Your task to perform on an android device: Open calendar and show me the first week of next month Image 0: 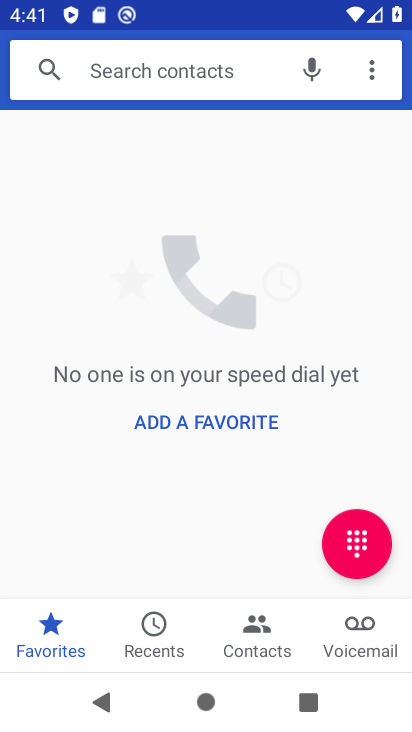
Step 0: drag from (395, 691) to (192, 228)
Your task to perform on an android device: Open calendar and show me the first week of next month Image 1: 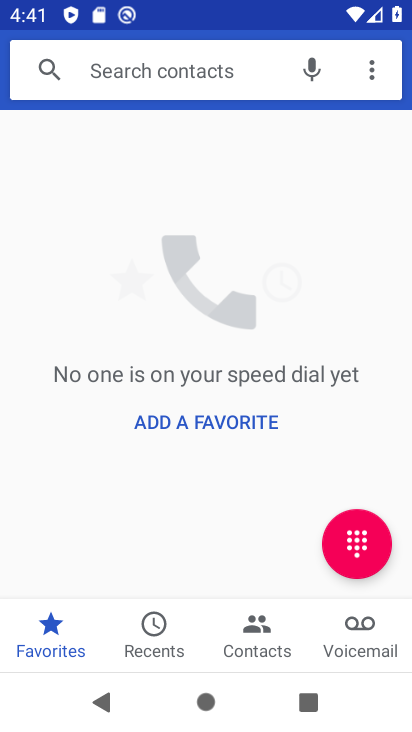
Step 1: press home button
Your task to perform on an android device: Open calendar and show me the first week of next month Image 2: 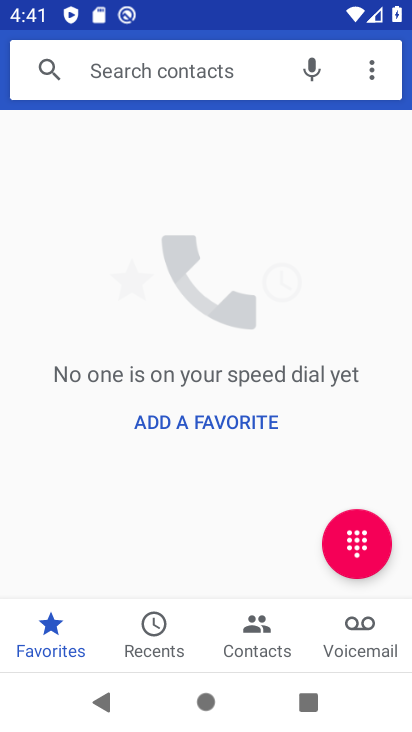
Step 2: press home button
Your task to perform on an android device: Open calendar and show me the first week of next month Image 3: 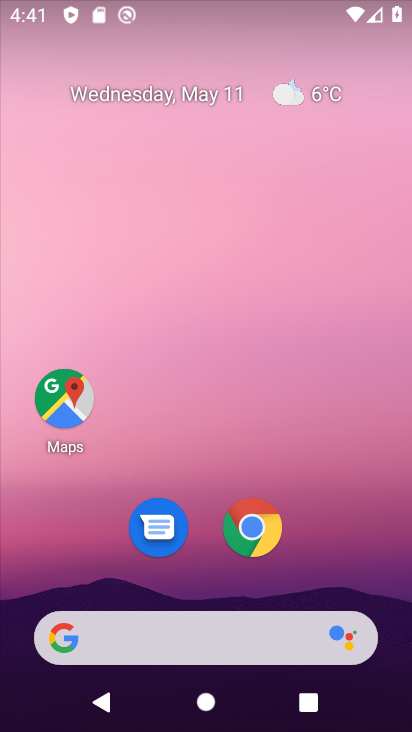
Step 3: drag from (311, 543) to (146, 87)
Your task to perform on an android device: Open calendar and show me the first week of next month Image 4: 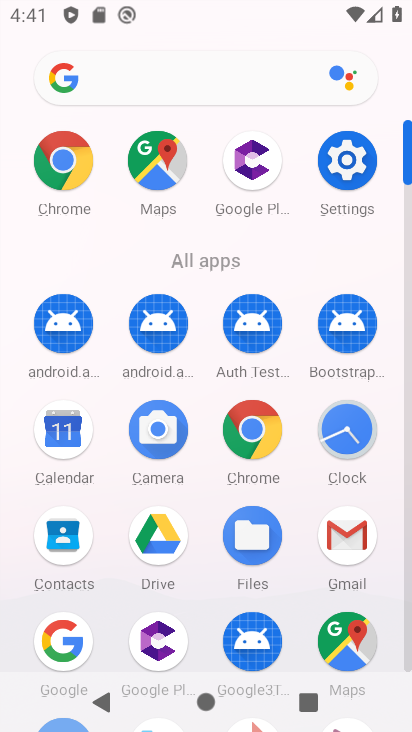
Step 4: click (64, 443)
Your task to perform on an android device: Open calendar and show me the first week of next month Image 5: 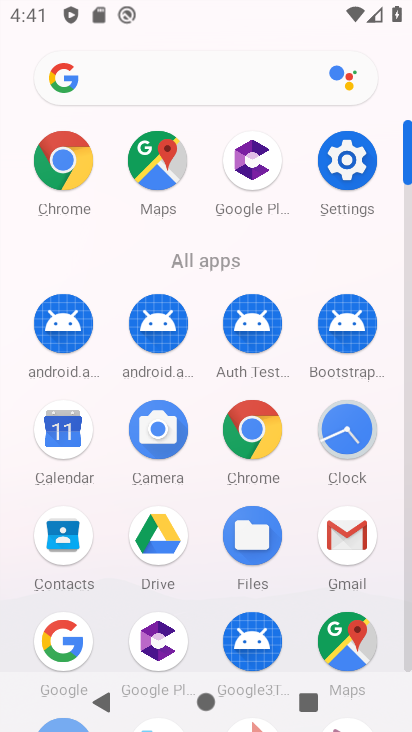
Step 5: click (64, 442)
Your task to perform on an android device: Open calendar and show me the first week of next month Image 6: 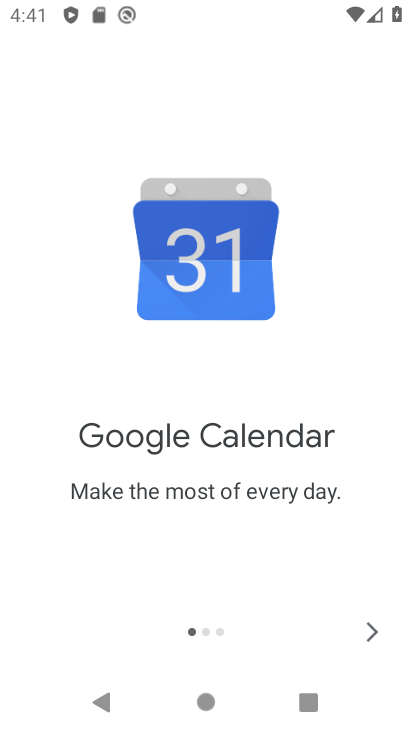
Step 6: click (372, 623)
Your task to perform on an android device: Open calendar and show me the first week of next month Image 7: 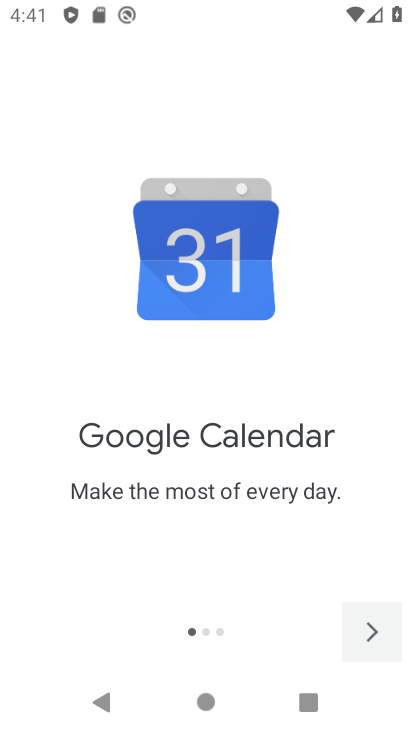
Step 7: click (369, 624)
Your task to perform on an android device: Open calendar and show me the first week of next month Image 8: 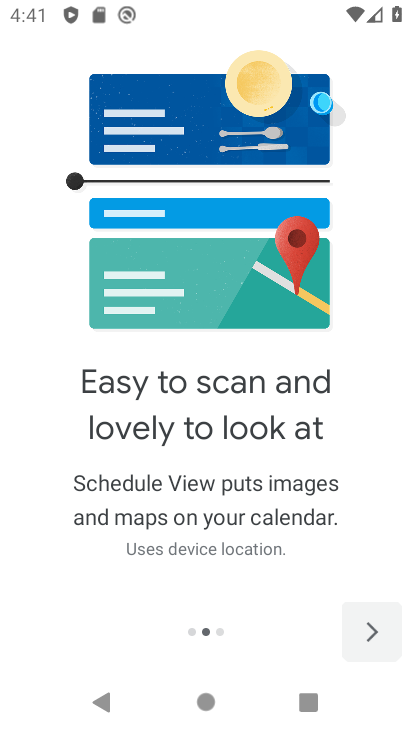
Step 8: click (369, 624)
Your task to perform on an android device: Open calendar and show me the first week of next month Image 9: 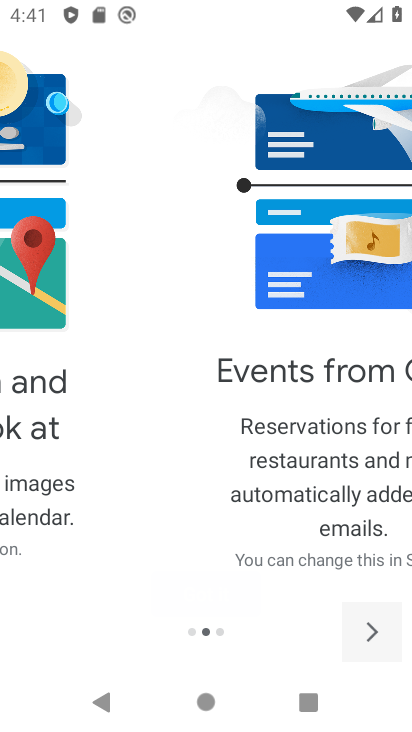
Step 9: click (369, 624)
Your task to perform on an android device: Open calendar and show me the first week of next month Image 10: 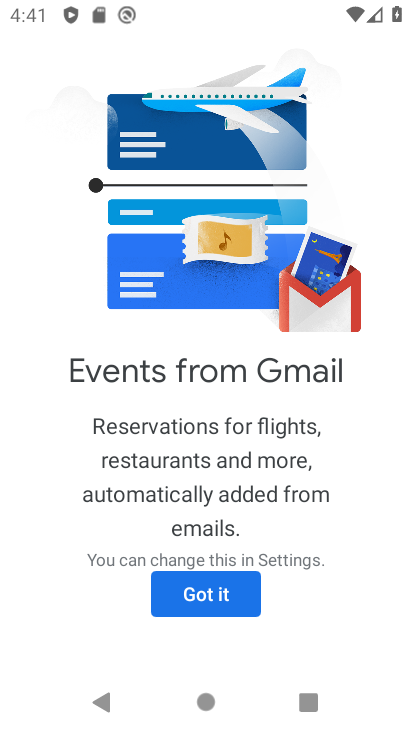
Step 10: click (369, 624)
Your task to perform on an android device: Open calendar and show me the first week of next month Image 11: 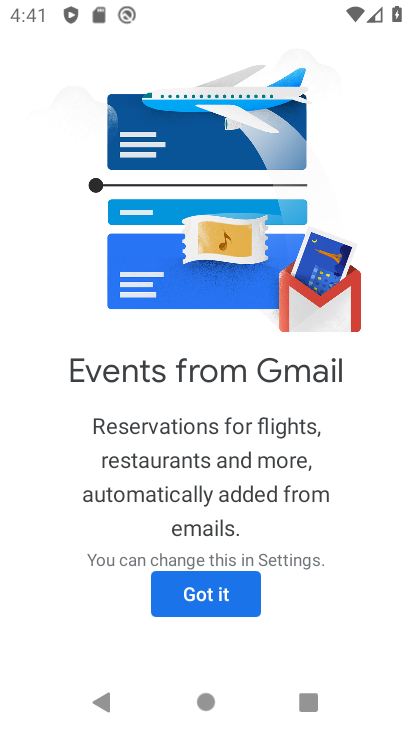
Step 11: click (224, 590)
Your task to perform on an android device: Open calendar and show me the first week of next month Image 12: 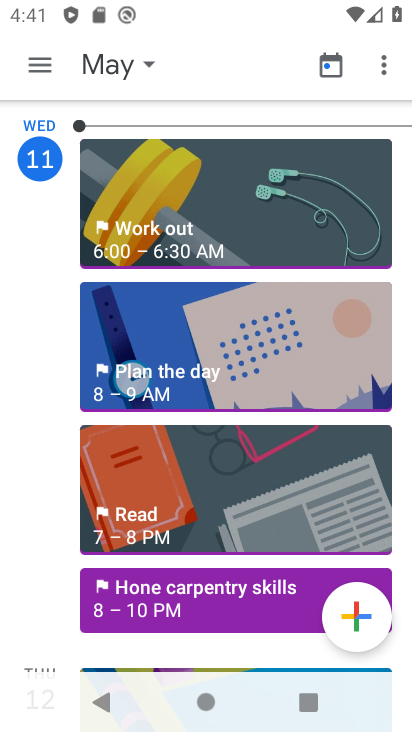
Step 12: click (144, 62)
Your task to perform on an android device: Open calendar and show me the first week of next month Image 13: 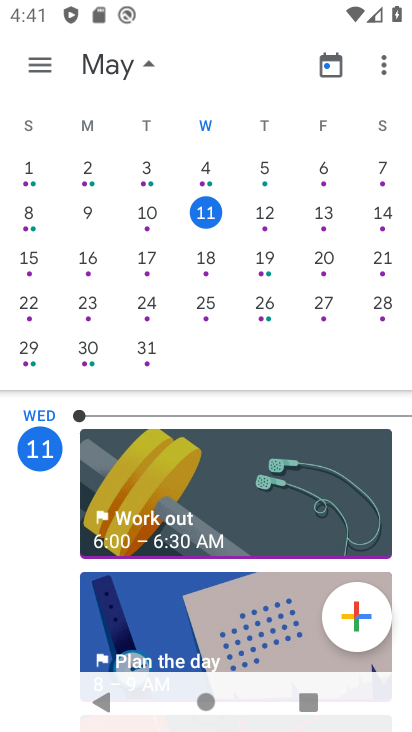
Step 13: task complete